Your task to perform on an android device: all mails in gmail Image 0: 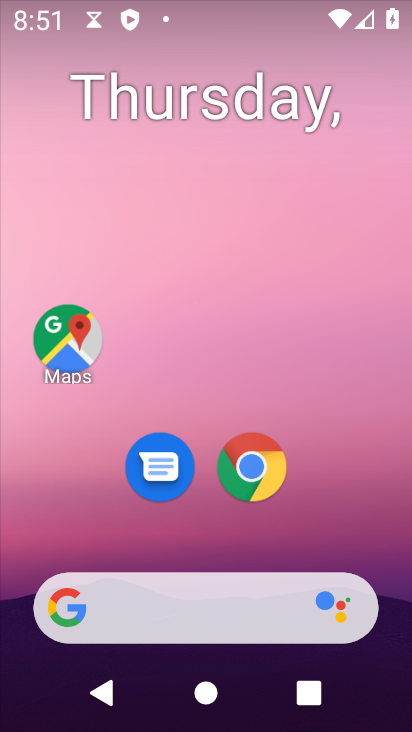
Step 0: drag from (285, 542) to (330, 2)
Your task to perform on an android device: all mails in gmail Image 1: 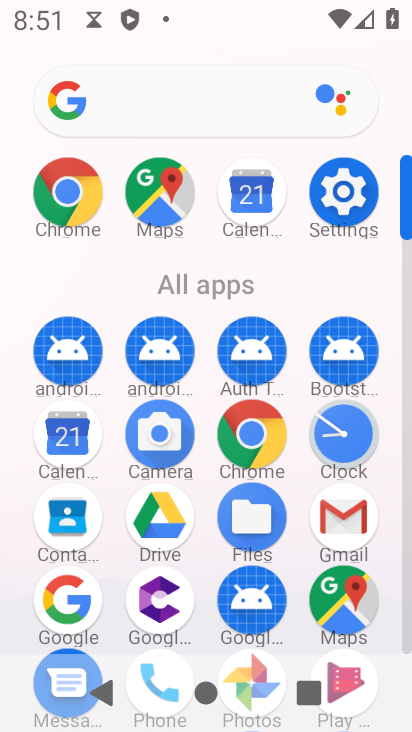
Step 1: click (335, 517)
Your task to perform on an android device: all mails in gmail Image 2: 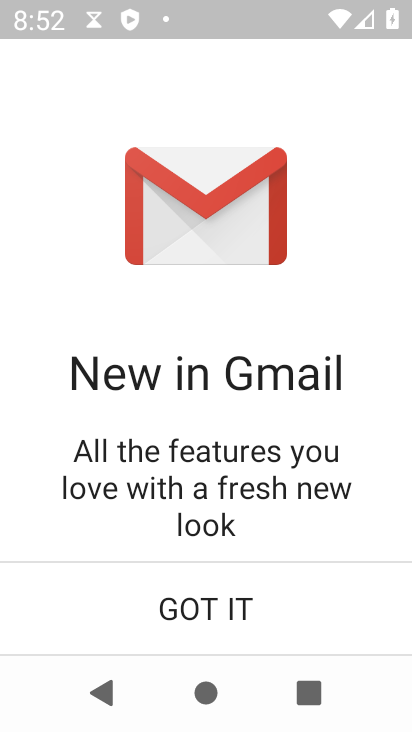
Step 2: click (311, 579)
Your task to perform on an android device: all mails in gmail Image 3: 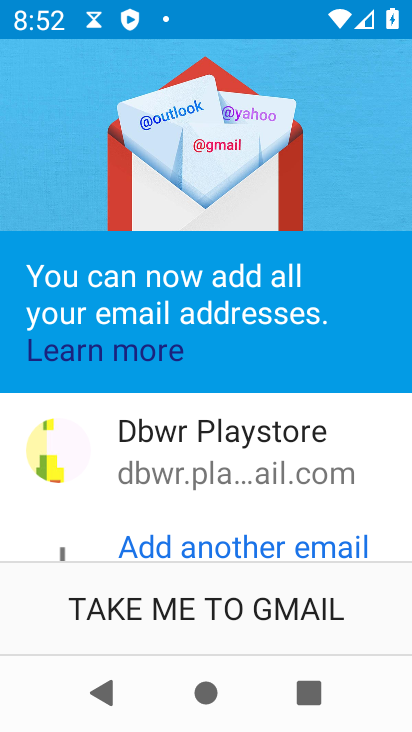
Step 3: click (303, 593)
Your task to perform on an android device: all mails in gmail Image 4: 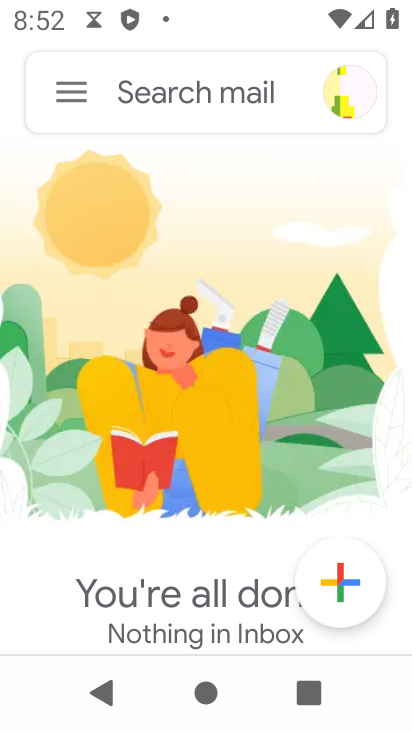
Step 4: click (64, 130)
Your task to perform on an android device: all mails in gmail Image 5: 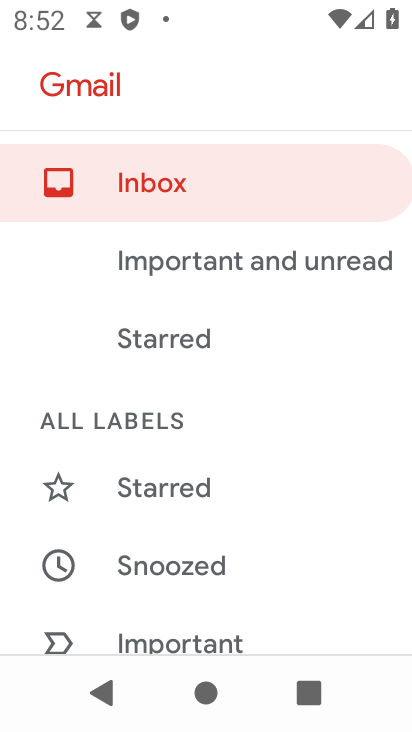
Step 5: drag from (110, 463) to (100, 407)
Your task to perform on an android device: all mails in gmail Image 6: 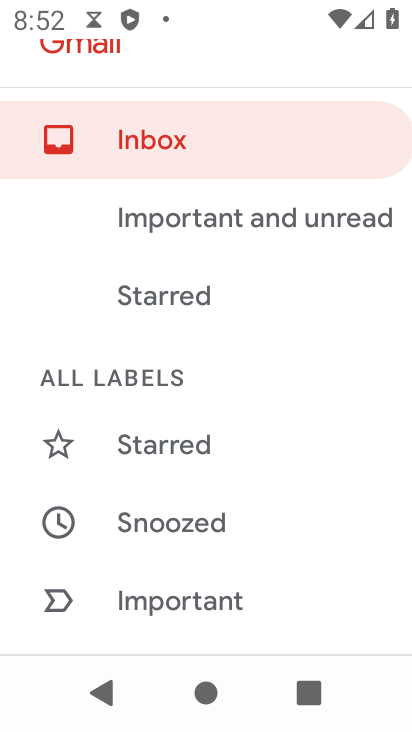
Step 6: drag from (149, 492) to (108, 401)
Your task to perform on an android device: all mails in gmail Image 7: 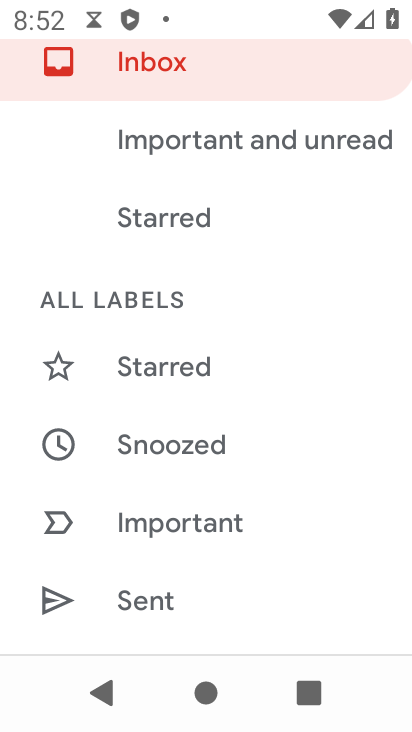
Step 7: drag from (163, 496) to (119, 395)
Your task to perform on an android device: all mails in gmail Image 8: 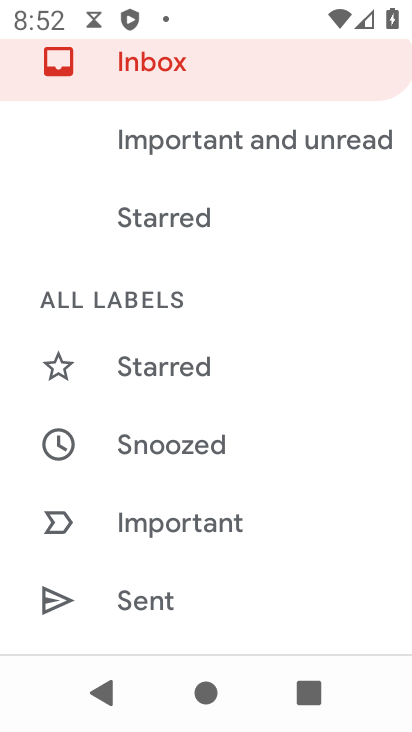
Step 8: drag from (181, 528) to (144, 402)
Your task to perform on an android device: all mails in gmail Image 9: 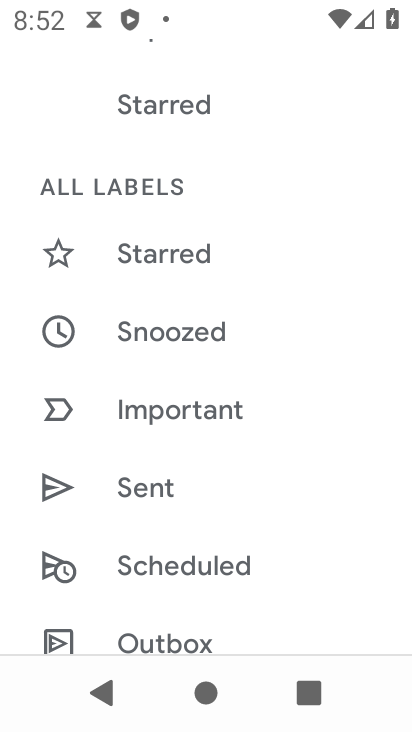
Step 9: drag from (182, 581) to (148, 477)
Your task to perform on an android device: all mails in gmail Image 10: 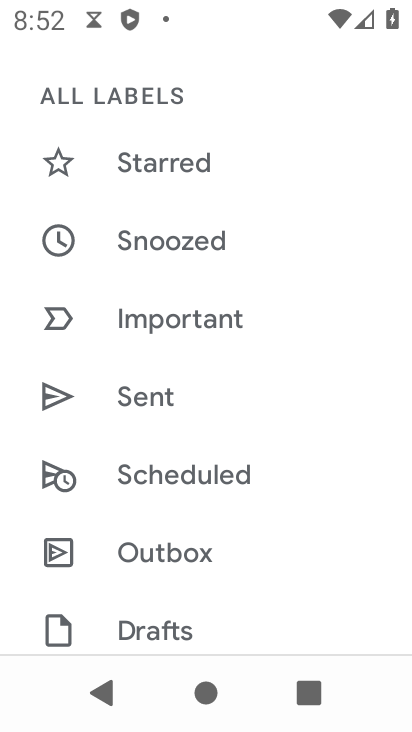
Step 10: drag from (173, 536) to (137, 451)
Your task to perform on an android device: all mails in gmail Image 11: 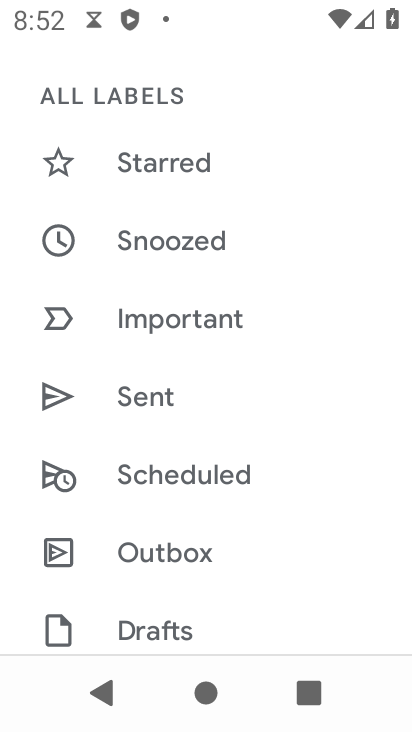
Step 11: drag from (118, 567) to (81, 463)
Your task to perform on an android device: all mails in gmail Image 12: 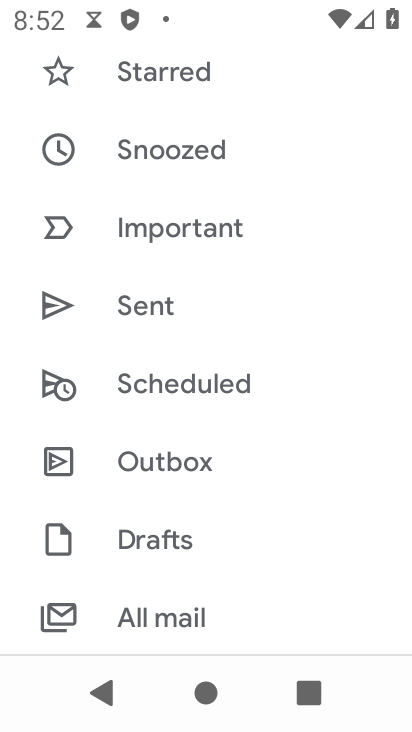
Step 12: drag from (96, 573) to (50, 460)
Your task to perform on an android device: all mails in gmail Image 13: 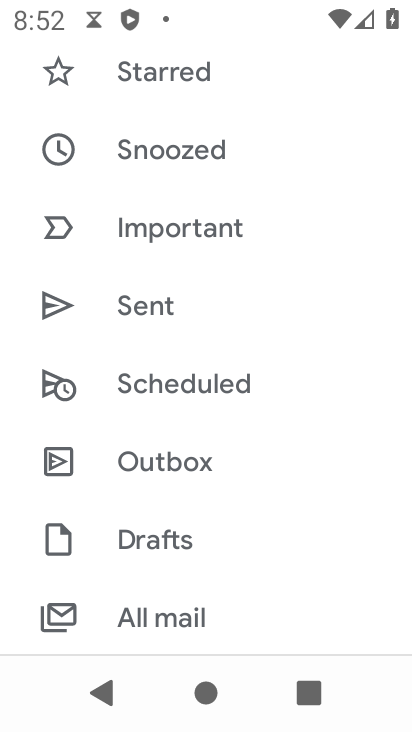
Step 13: click (147, 611)
Your task to perform on an android device: all mails in gmail Image 14: 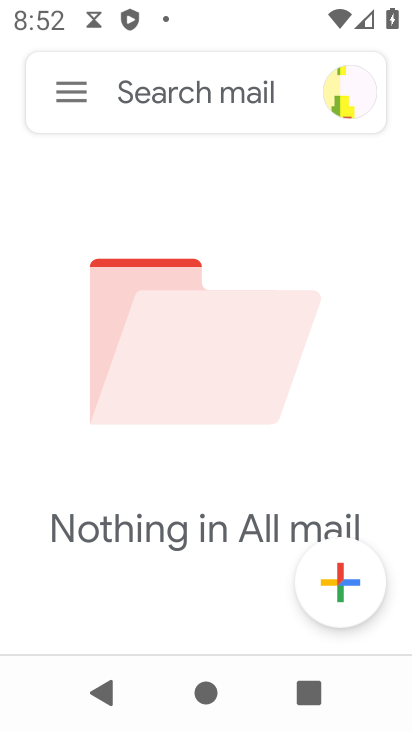
Step 14: task complete